Your task to perform on an android device: clear all cookies in the chrome app Image 0: 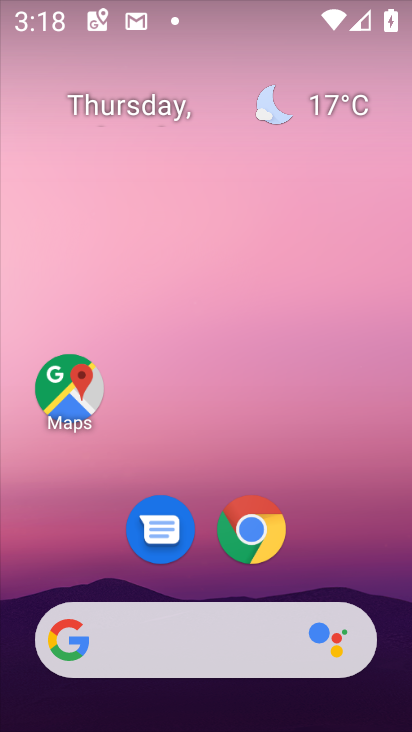
Step 0: click (247, 524)
Your task to perform on an android device: clear all cookies in the chrome app Image 1: 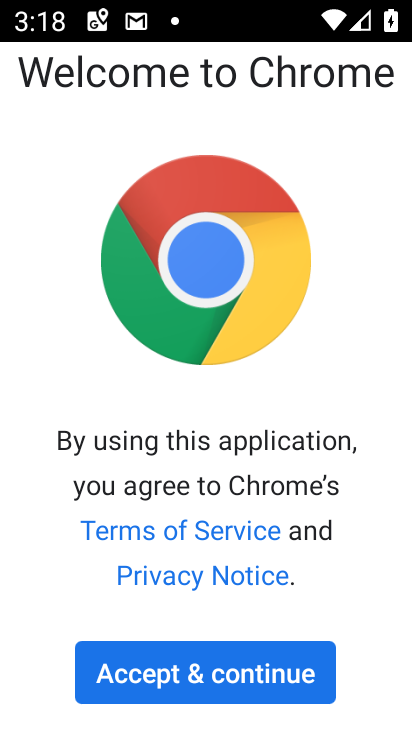
Step 1: click (258, 679)
Your task to perform on an android device: clear all cookies in the chrome app Image 2: 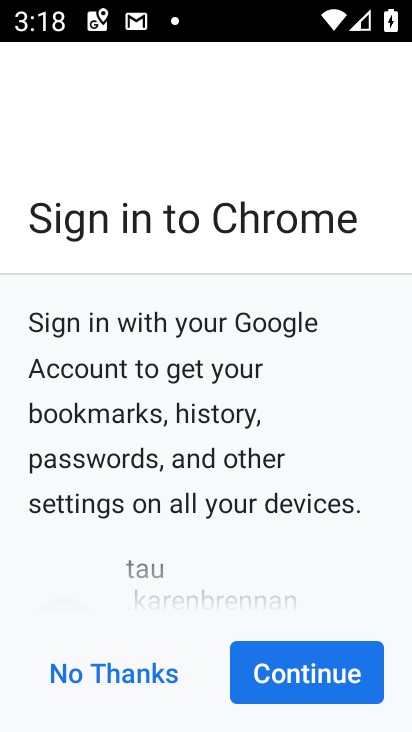
Step 2: click (278, 673)
Your task to perform on an android device: clear all cookies in the chrome app Image 3: 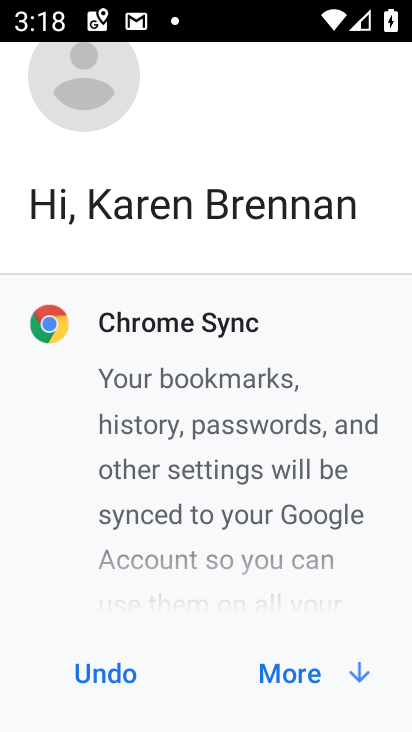
Step 3: click (317, 681)
Your task to perform on an android device: clear all cookies in the chrome app Image 4: 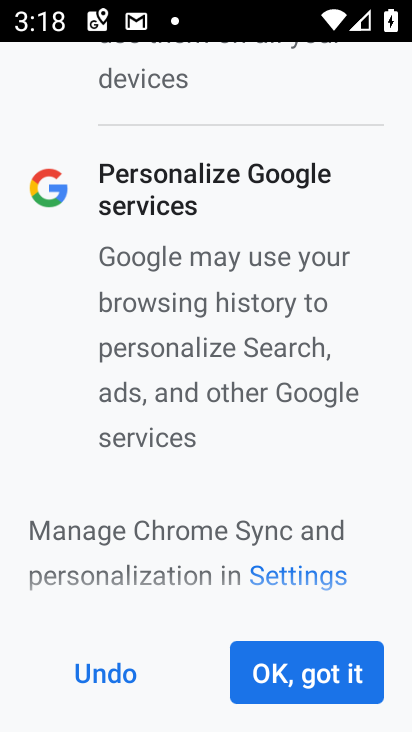
Step 4: click (317, 677)
Your task to perform on an android device: clear all cookies in the chrome app Image 5: 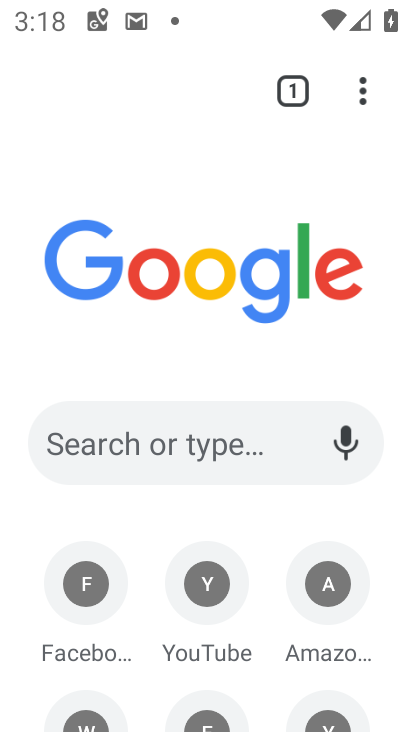
Step 5: click (360, 101)
Your task to perform on an android device: clear all cookies in the chrome app Image 6: 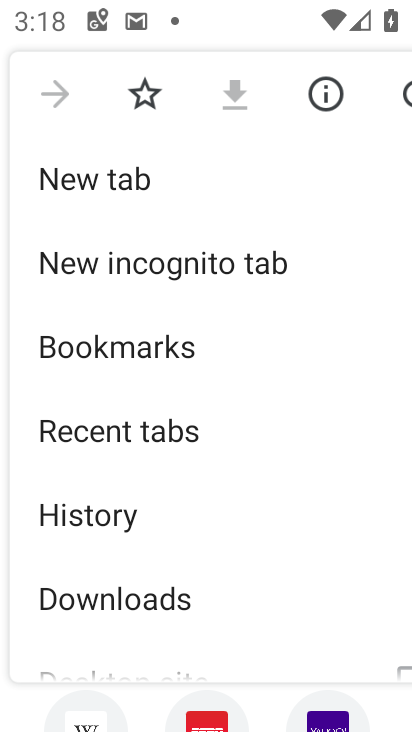
Step 6: drag from (202, 596) to (201, 281)
Your task to perform on an android device: clear all cookies in the chrome app Image 7: 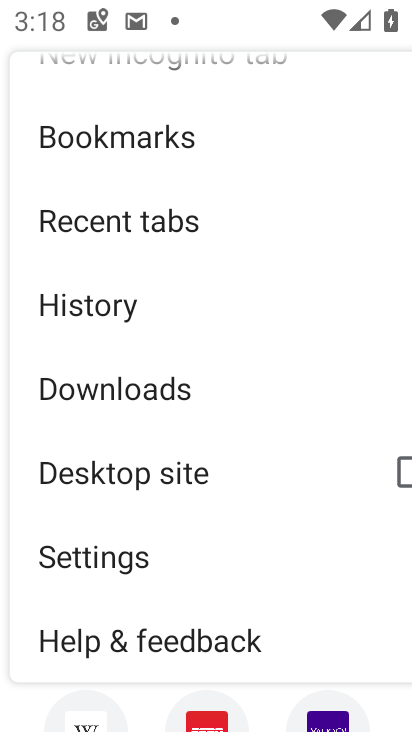
Step 7: click (116, 301)
Your task to perform on an android device: clear all cookies in the chrome app Image 8: 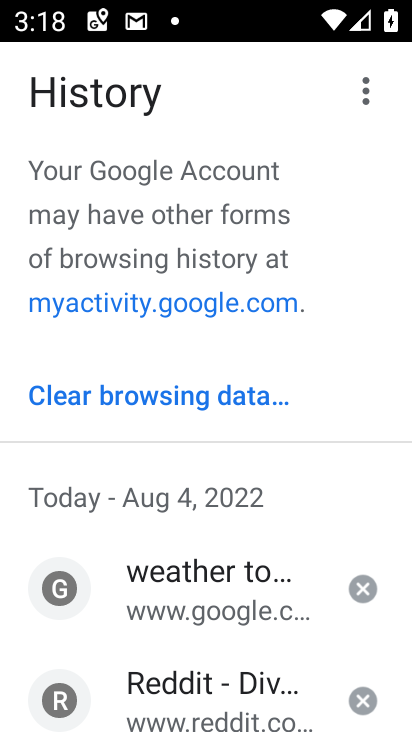
Step 8: click (214, 389)
Your task to perform on an android device: clear all cookies in the chrome app Image 9: 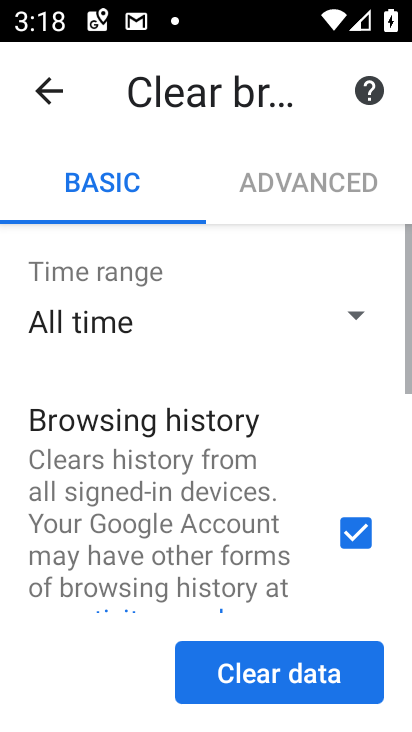
Step 9: click (293, 675)
Your task to perform on an android device: clear all cookies in the chrome app Image 10: 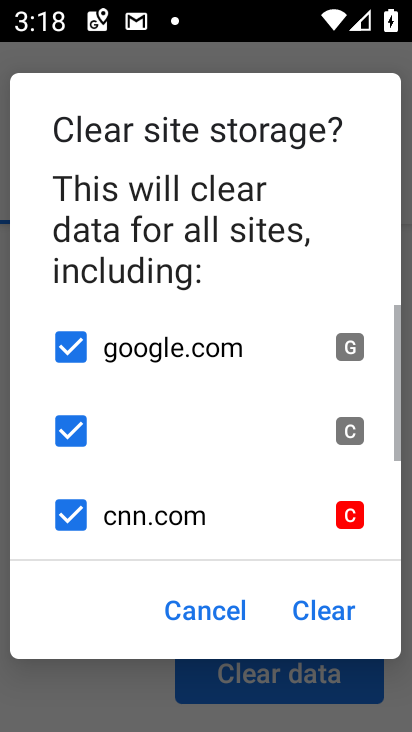
Step 10: click (300, 623)
Your task to perform on an android device: clear all cookies in the chrome app Image 11: 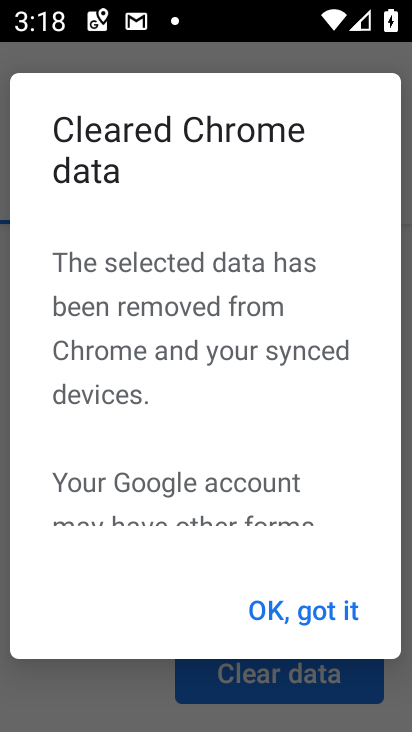
Step 11: click (298, 614)
Your task to perform on an android device: clear all cookies in the chrome app Image 12: 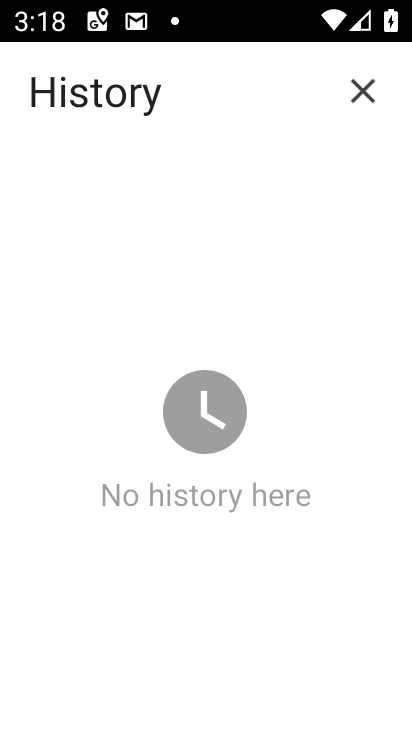
Step 12: task complete